Your task to perform on an android device: Open the web browser Image 0: 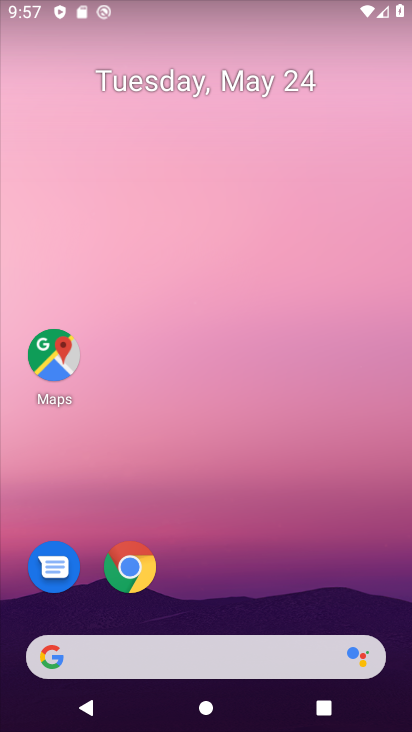
Step 0: click (122, 554)
Your task to perform on an android device: Open the web browser Image 1: 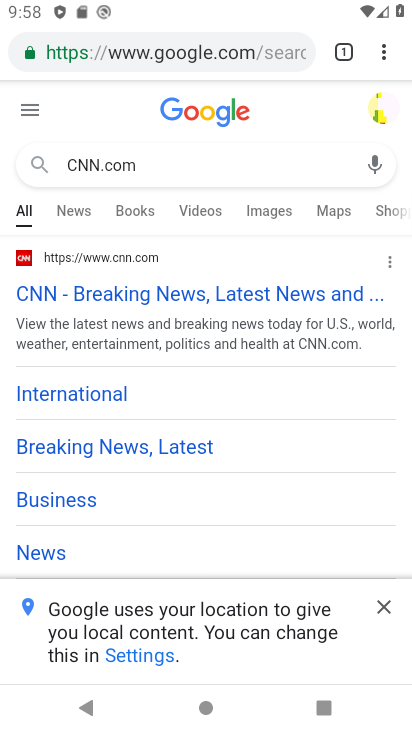
Step 1: task complete